Your task to perform on an android device: Open the web browser Image 0: 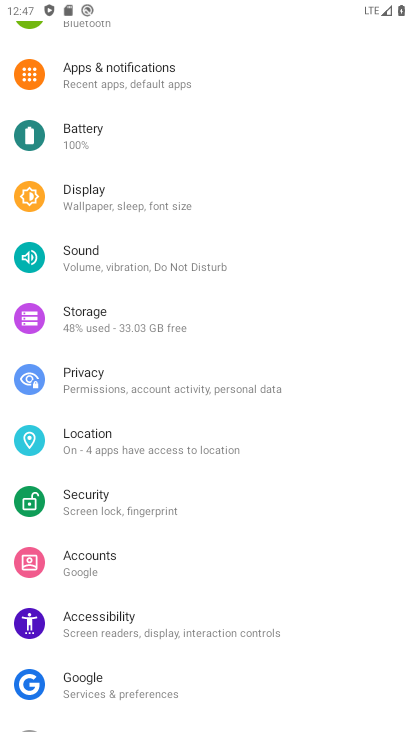
Step 0: press home button
Your task to perform on an android device: Open the web browser Image 1: 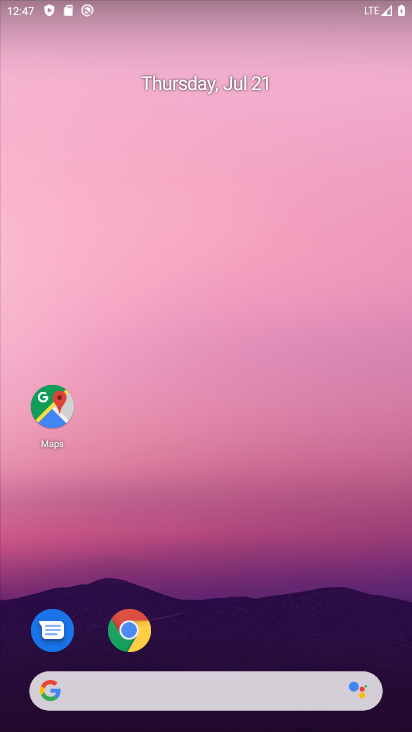
Step 1: click (96, 675)
Your task to perform on an android device: Open the web browser Image 2: 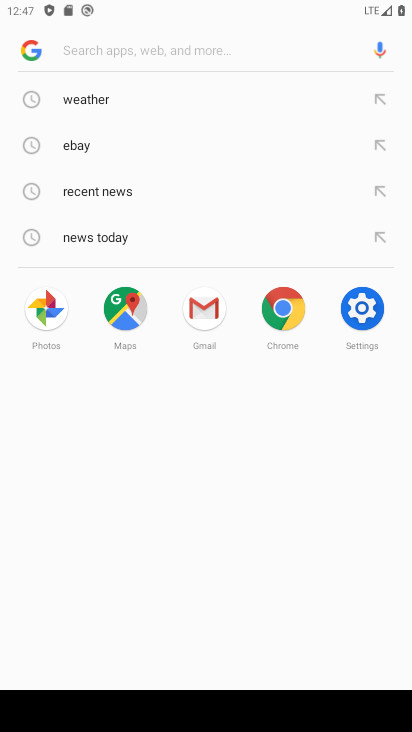
Step 2: task complete